Your task to perform on an android device: Go to sound settings Image 0: 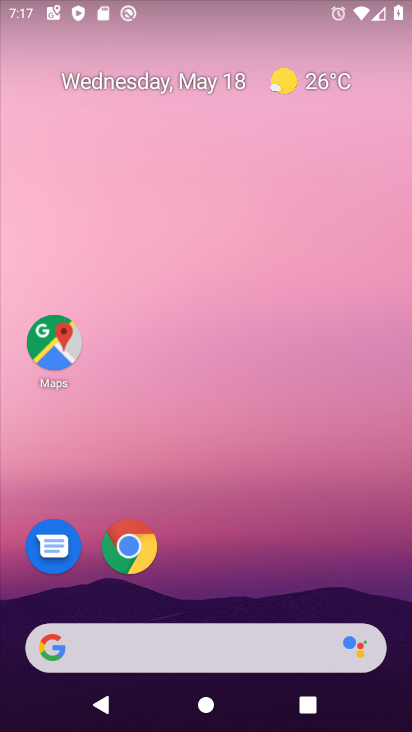
Step 0: drag from (397, 635) to (293, 97)
Your task to perform on an android device: Go to sound settings Image 1: 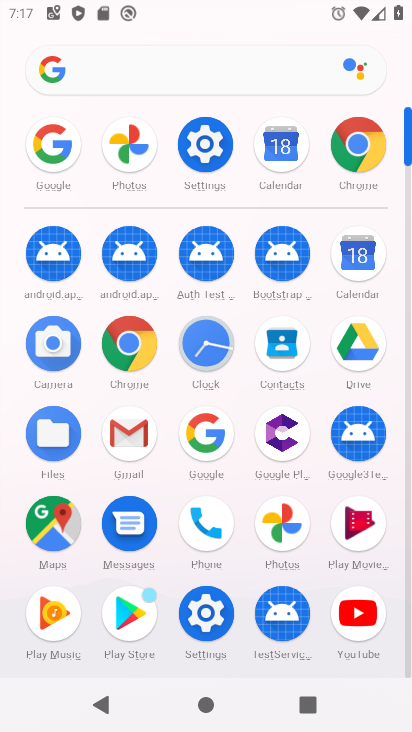
Step 1: click (211, 162)
Your task to perform on an android device: Go to sound settings Image 2: 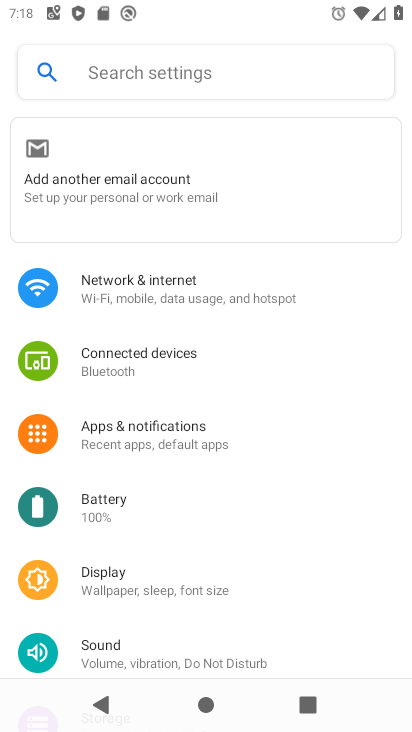
Step 2: click (95, 644)
Your task to perform on an android device: Go to sound settings Image 3: 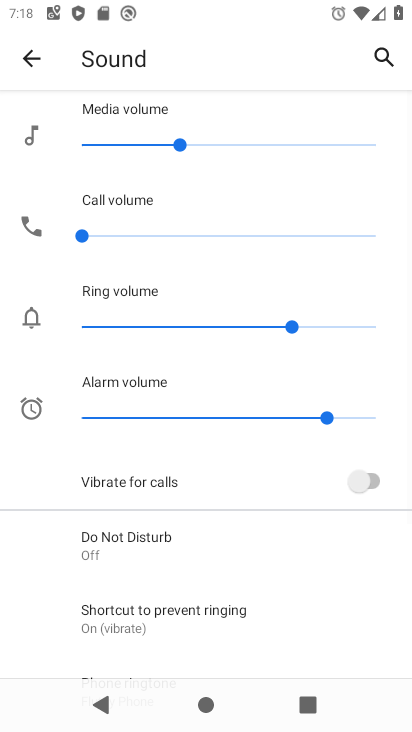
Step 3: task complete